Your task to perform on an android device: Open internet settings Image 0: 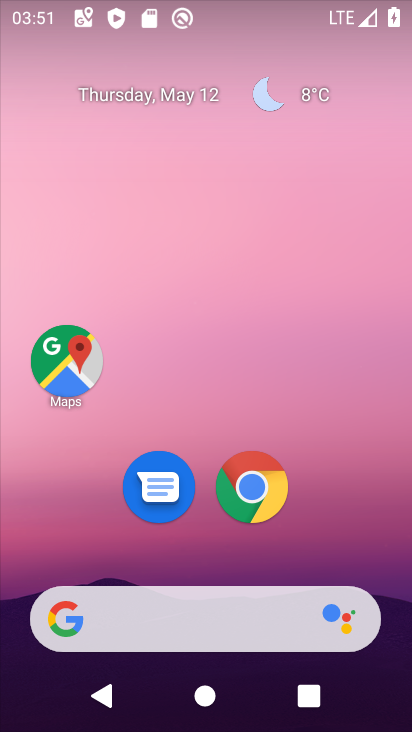
Step 0: drag from (391, 474) to (288, 101)
Your task to perform on an android device: Open internet settings Image 1: 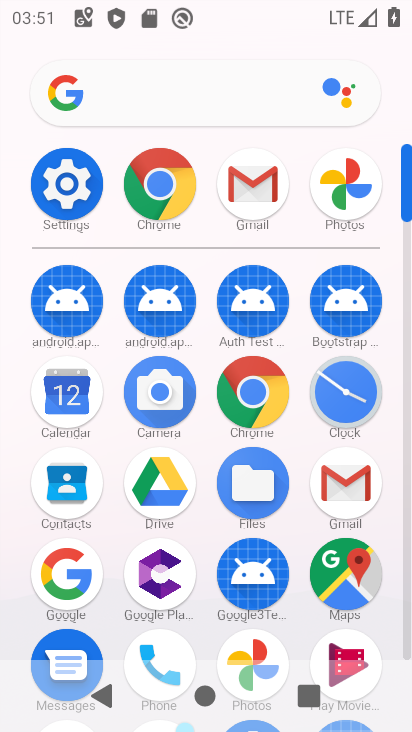
Step 1: click (56, 172)
Your task to perform on an android device: Open internet settings Image 2: 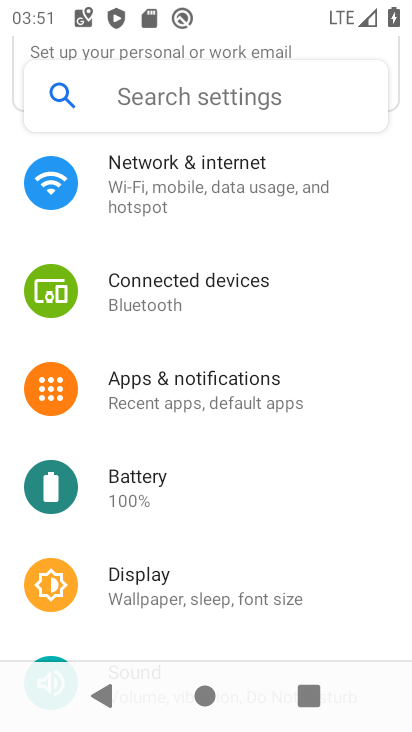
Step 2: drag from (210, 214) to (261, 730)
Your task to perform on an android device: Open internet settings Image 3: 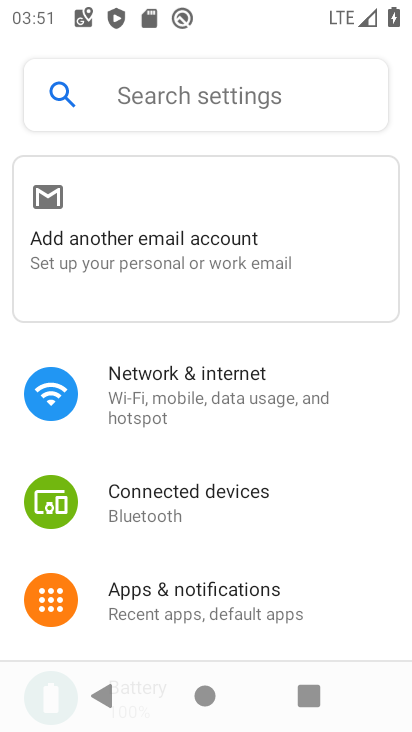
Step 3: drag from (281, 562) to (328, 237)
Your task to perform on an android device: Open internet settings Image 4: 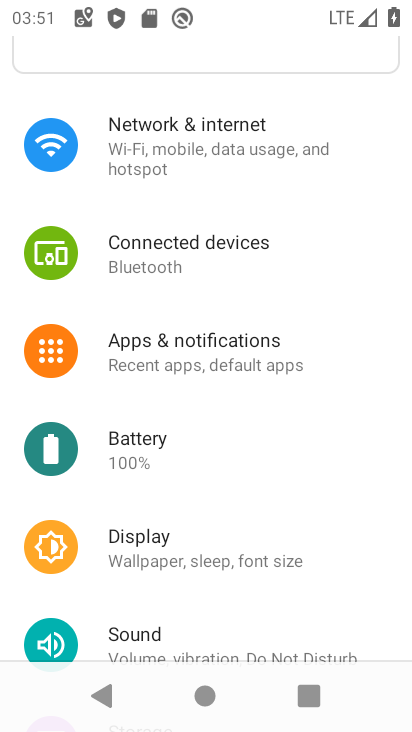
Step 4: click (212, 153)
Your task to perform on an android device: Open internet settings Image 5: 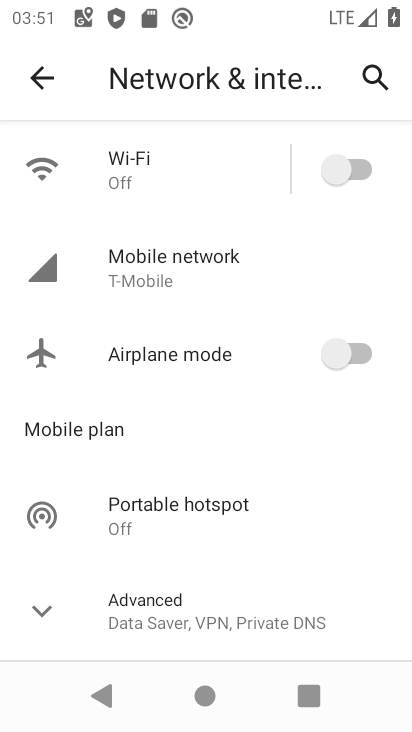
Step 5: click (178, 591)
Your task to perform on an android device: Open internet settings Image 6: 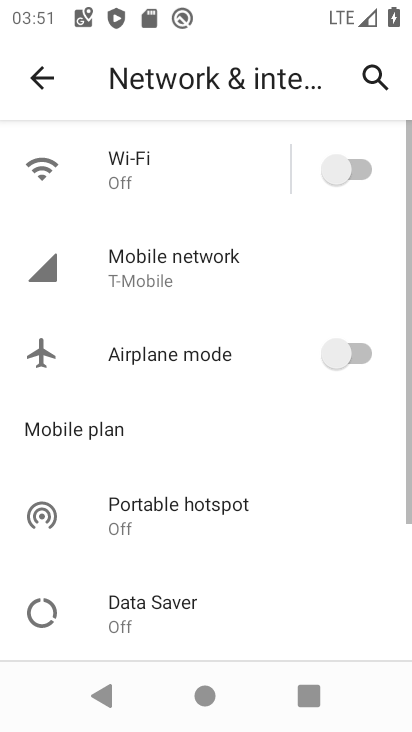
Step 6: task complete